Your task to perform on an android device: toggle notifications settings in the gmail app Image 0: 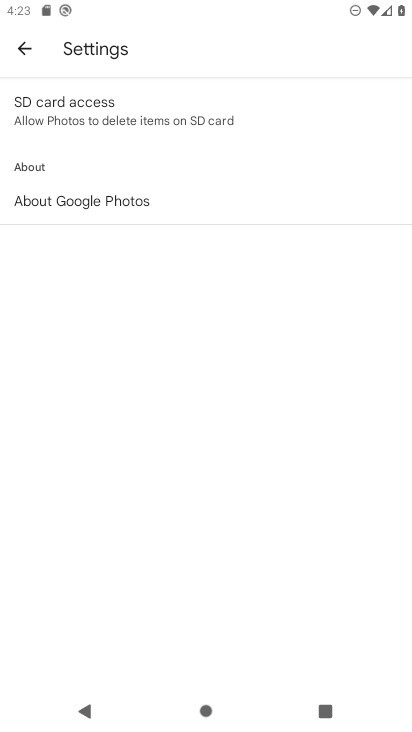
Step 0: press home button
Your task to perform on an android device: toggle notifications settings in the gmail app Image 1: 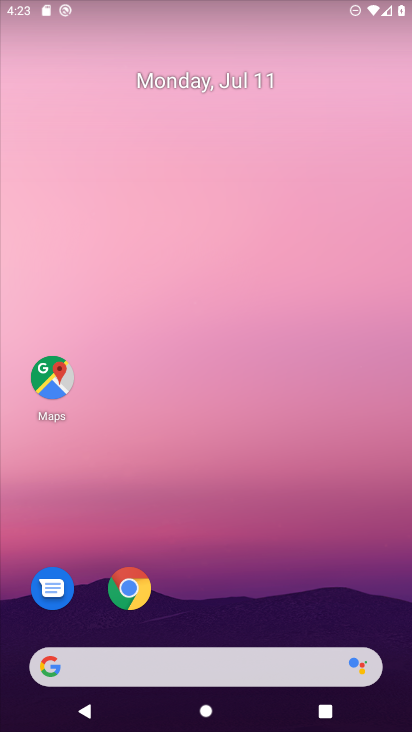
Step 1: drag from (260, 584) to (259, 26)
Your task to perform on an android device: toggle notifications settings in the gmail app Image 2: 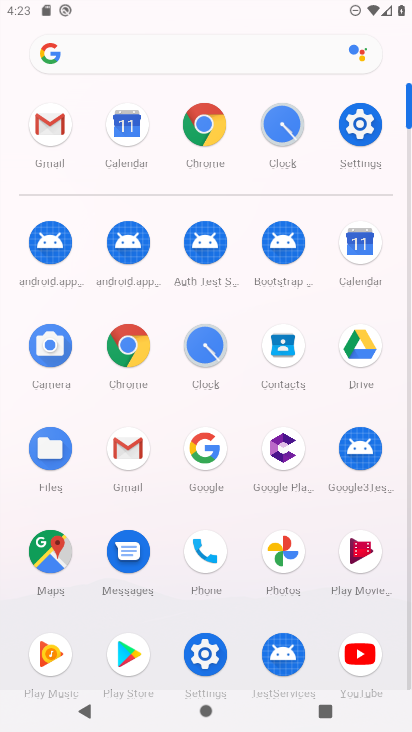
Step 2: click (365, 127)
Your task to perform on an android device: toggle notifications settings in the gmail app Image 3: 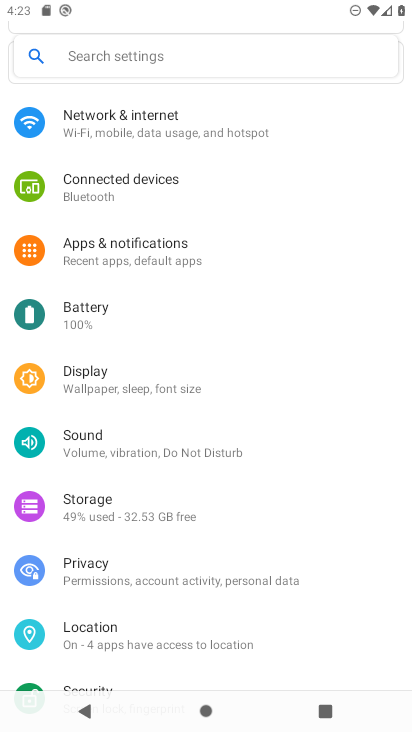
Step 3: click (117, 259)
Your task to perform on an android device: toggle notifications settings in the gmail app Image 4: 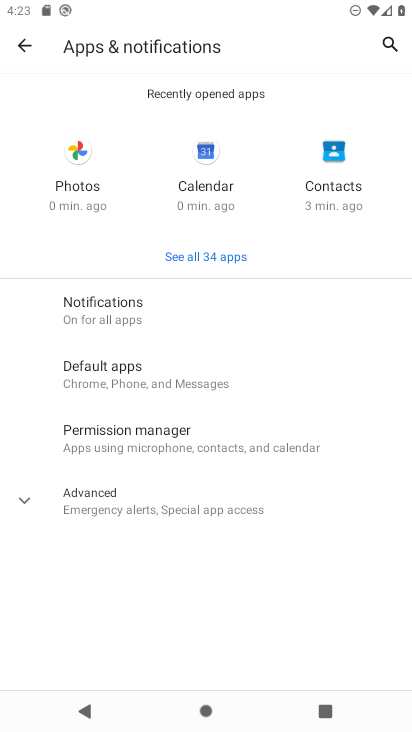
Step 4: click (24, 38)
Your task to perform on an android device: toggle notifications settings in the gmail app Image 5: 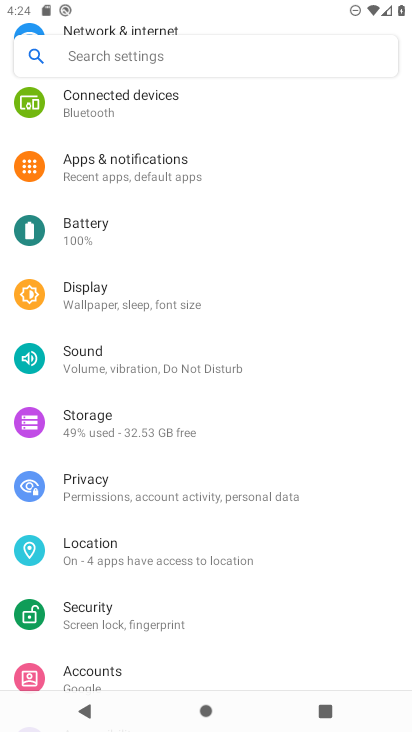
Step 5: click (24, 38)
Your task to perform on an android device: toggle notifications settings in the gmail app Image 6: 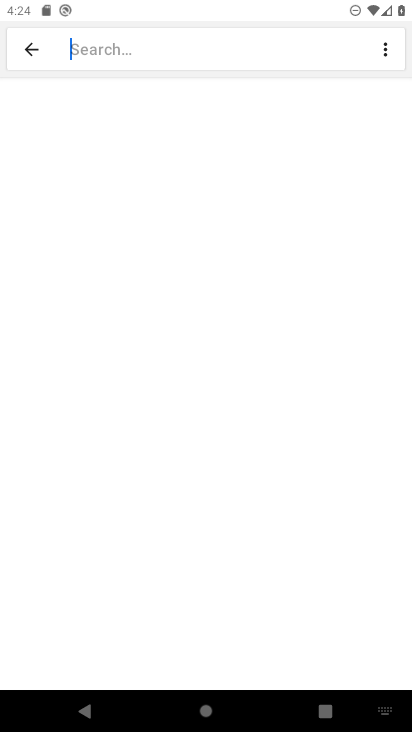
Step 6: press home button
Your task to perform on an android device: toggle notifications settings in the gmail app Image 7: 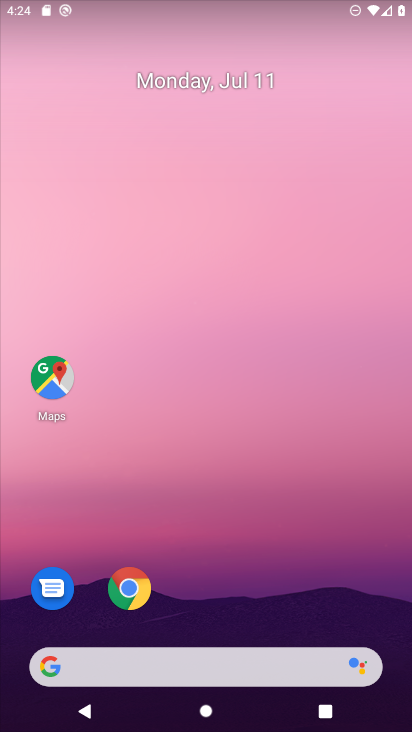
Step 7: drag from (277, 588) to (242, 217)
Your task to perform on an android device: toggle notifications settings in the gmail app Image 8: 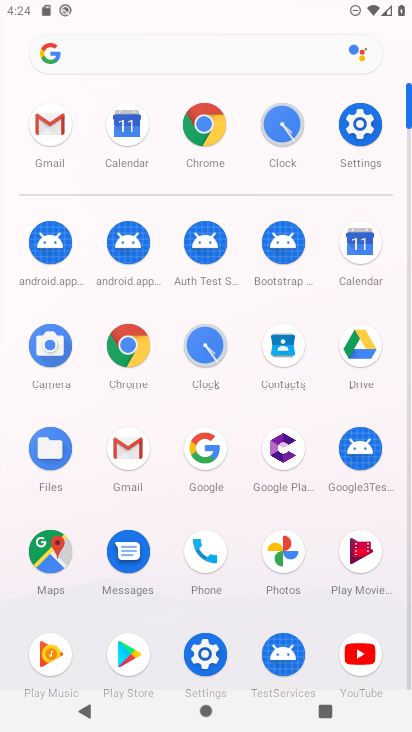
Step 8: click (49, 141)
Your task to perform on an android device: toggle notifications settings in the gmail app Image 9: 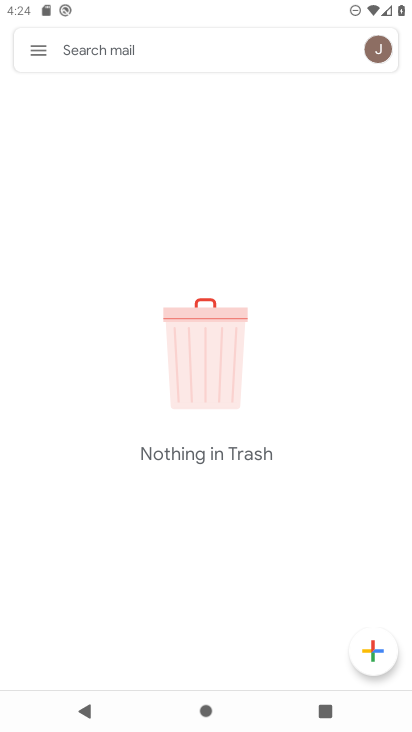
Step 9: drag from (44, 52) to (44, 97)
Your task to perform on an android device: toggle notifications settings in the gmail app Image 10: 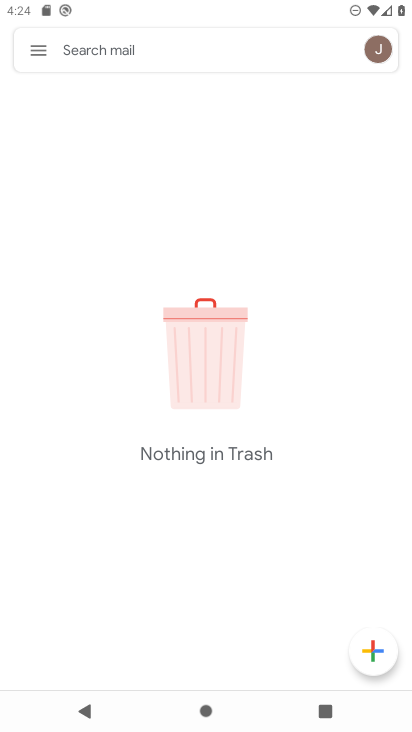
Step 10: click (45, 53)
Your task to perform on an android device: toggle notifications settings in the gmail app Image 11: 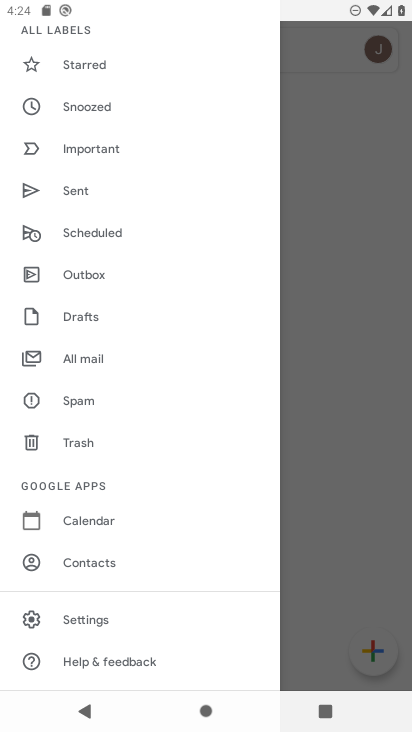
Step 11: click (90, 613)
Your task to perform on an android device: toggle notifications settings in the gmail app Image 12: 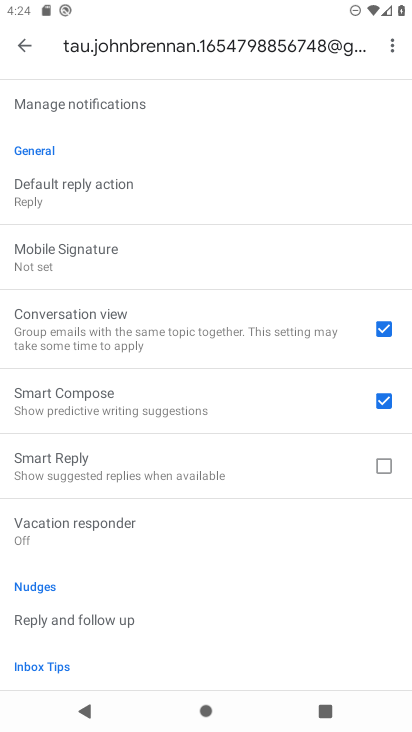
Step 12: click (78, 99)
Your task to perform on an android device: toggle notifications settings in the gmail app Image 13: 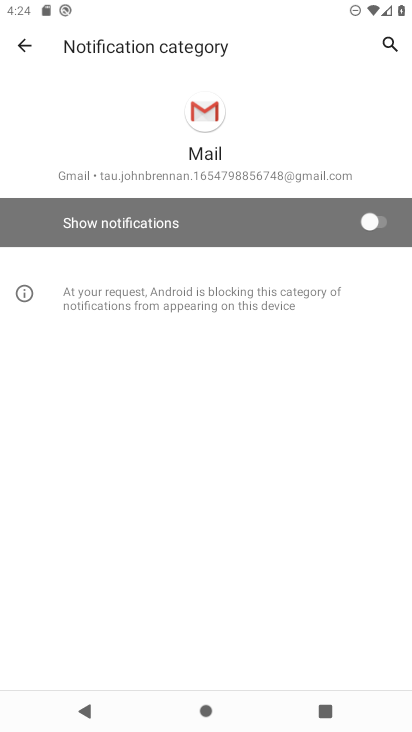
Step 13: click (372, 220)
Your task to perform on an android device: toggle notifications settings in the gmail app Image 14: 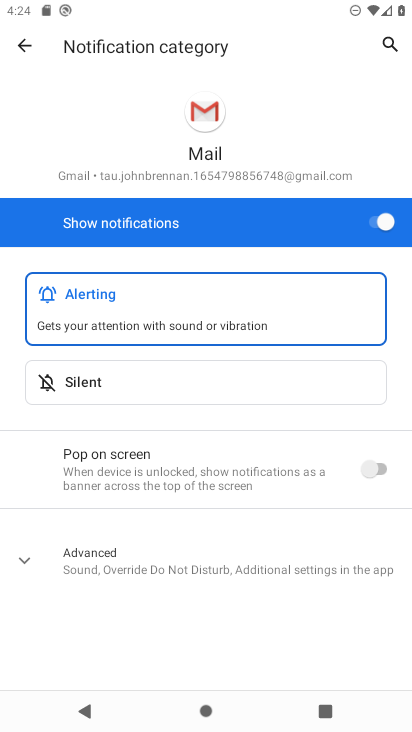
Step 14: task complete